Your task to perform on an android device: install app "Truecaller" Image 0: 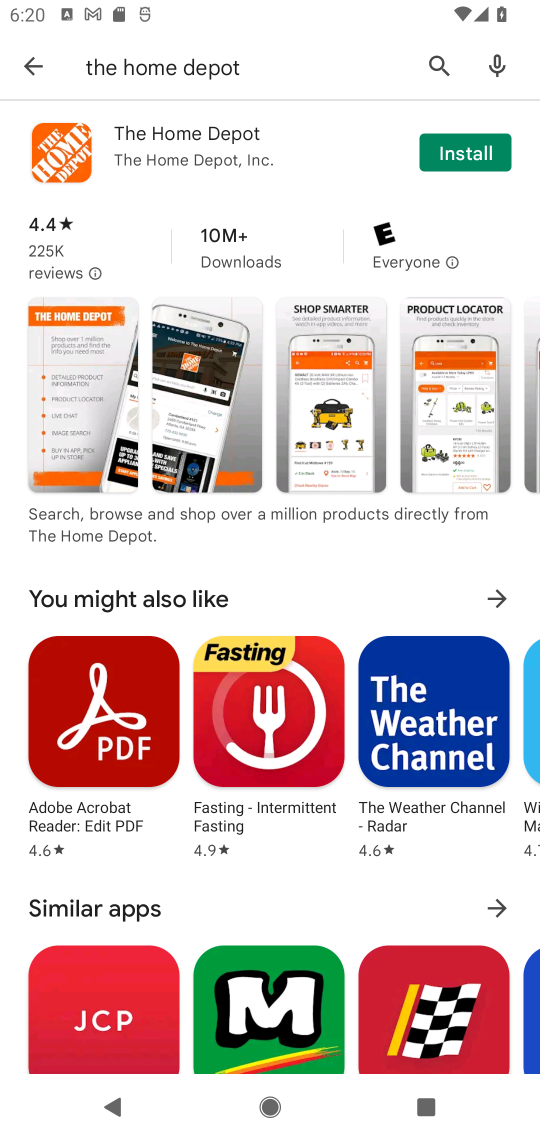
Step 0: press back button
Your task to perform on an android device: install app "Truecaller" Image 1: 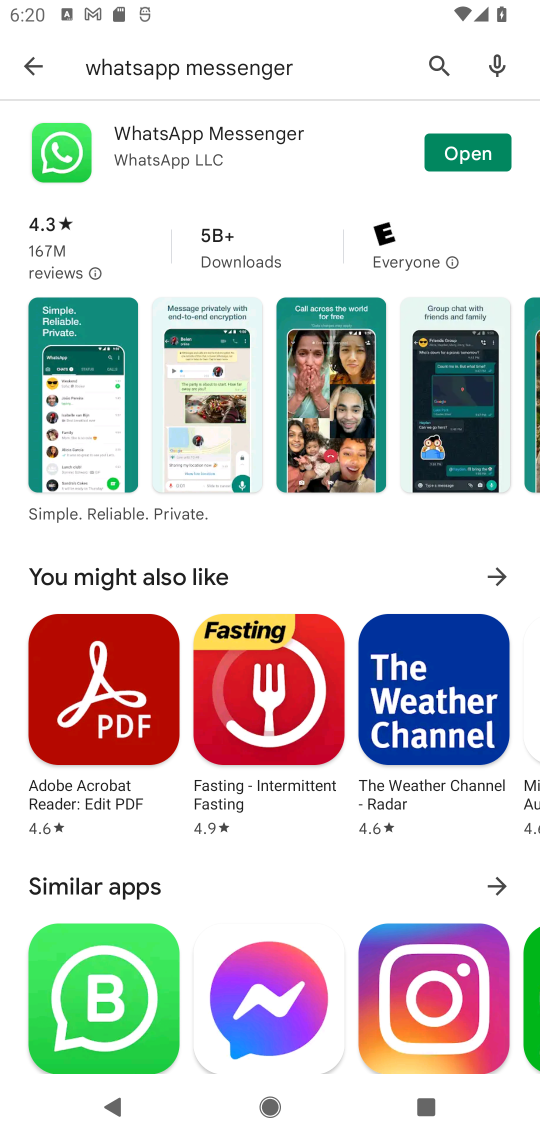
Step 1: press back button
Your task to perform on an android device: install app "Truecaller" Image 2: 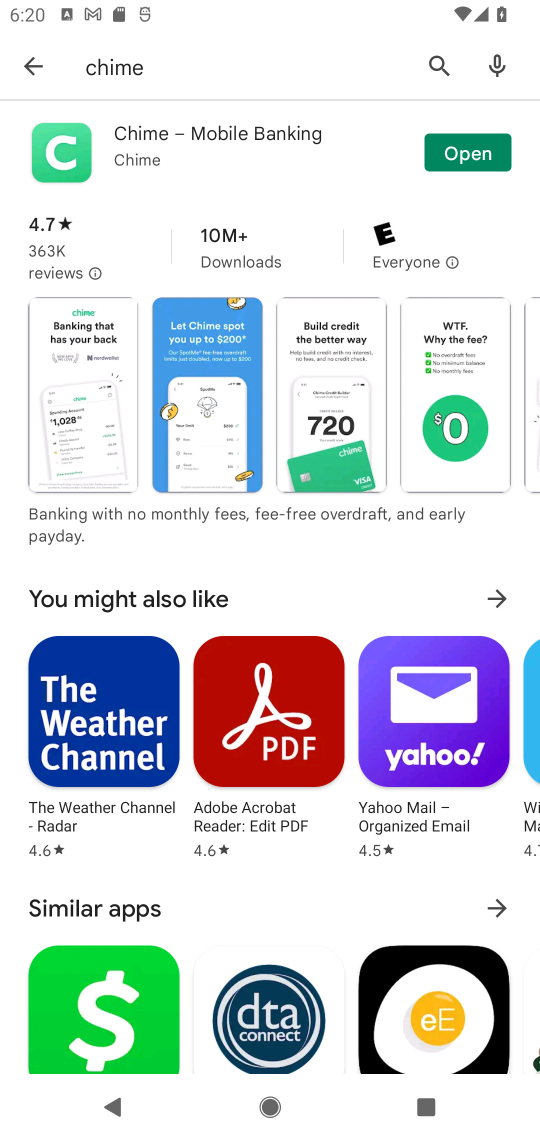
Step 2: press back button
Your task to perform on an android device: install app "Truecaller" Image 3: 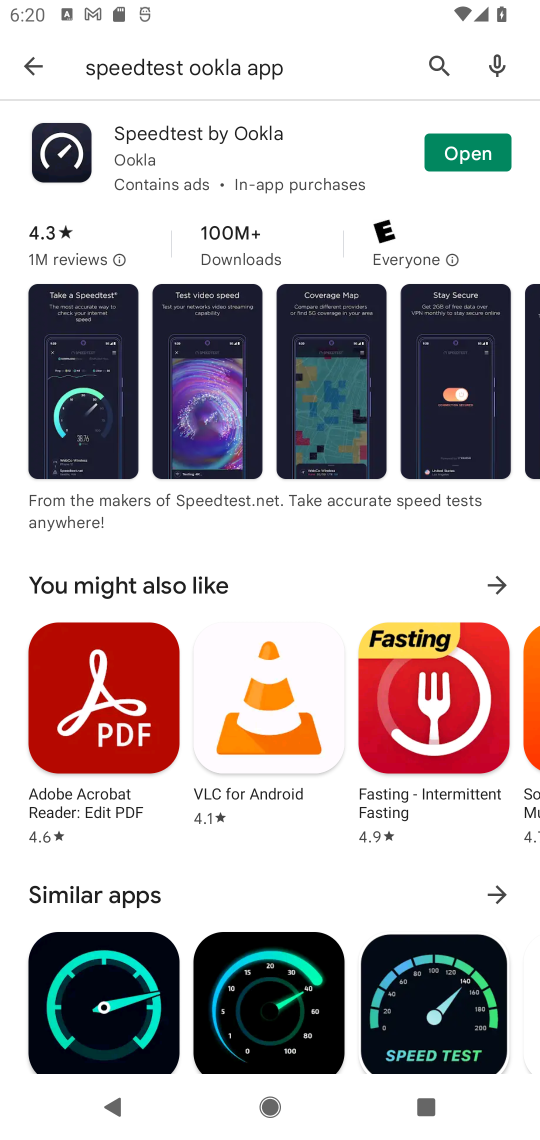
Step 3: press back button
Your task to perform on an android device: install app "Truecaller" Image 4: 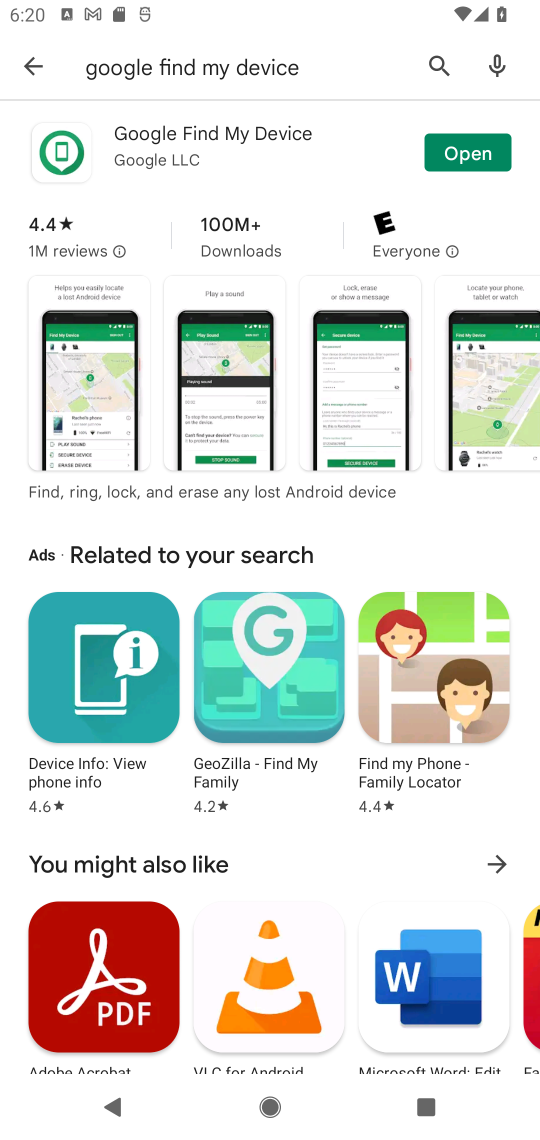
Step 4: press back button
Your task to perform on an android device: install app "Truecaller" Image 5: 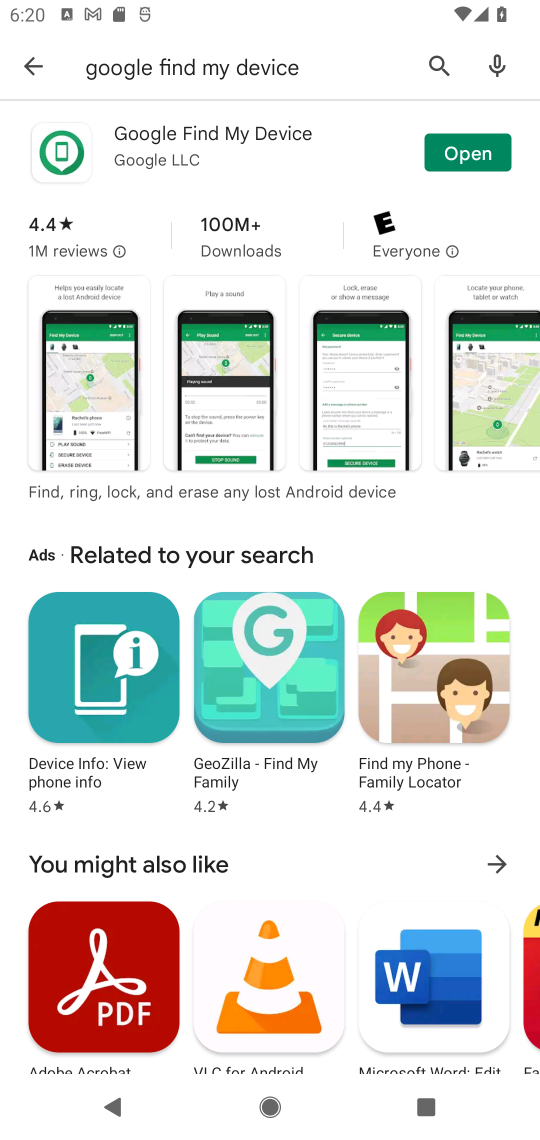
Step 5: press back button
Your task to perform on an android device: install app "Truecaller" Image 6: 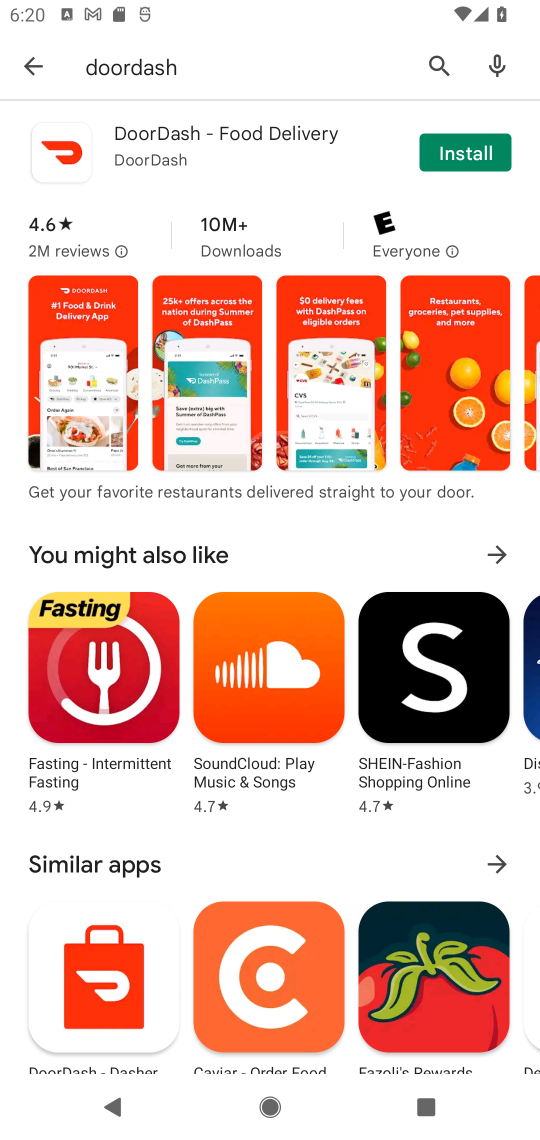
Step 6: press back button
Your task to perform on an android device: install app "Truecaller" Image 7: 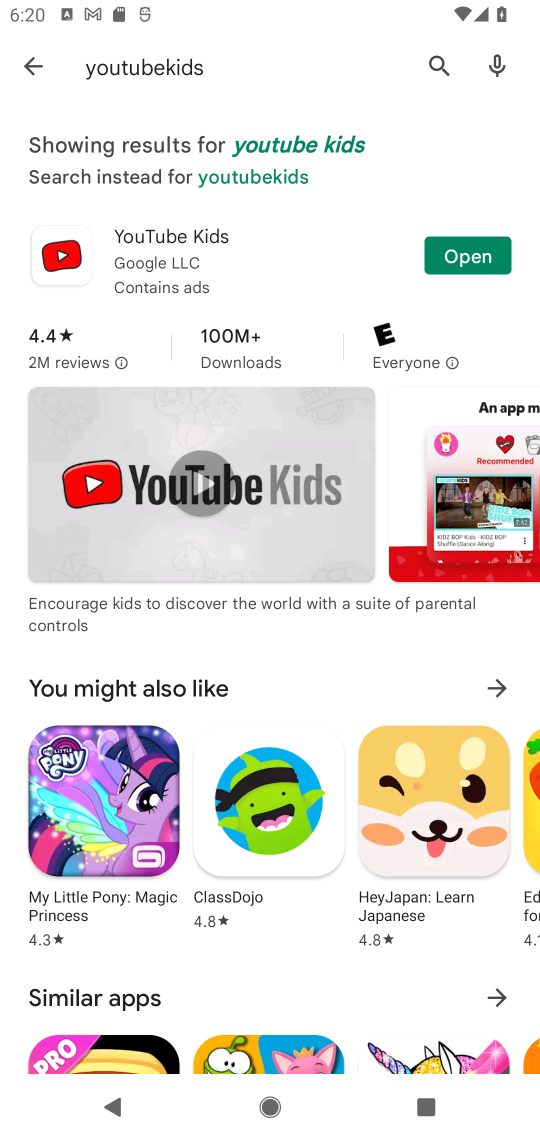
Step 7: press back button
Your task to perform on an android device: install app "Truecaller" Image 8: 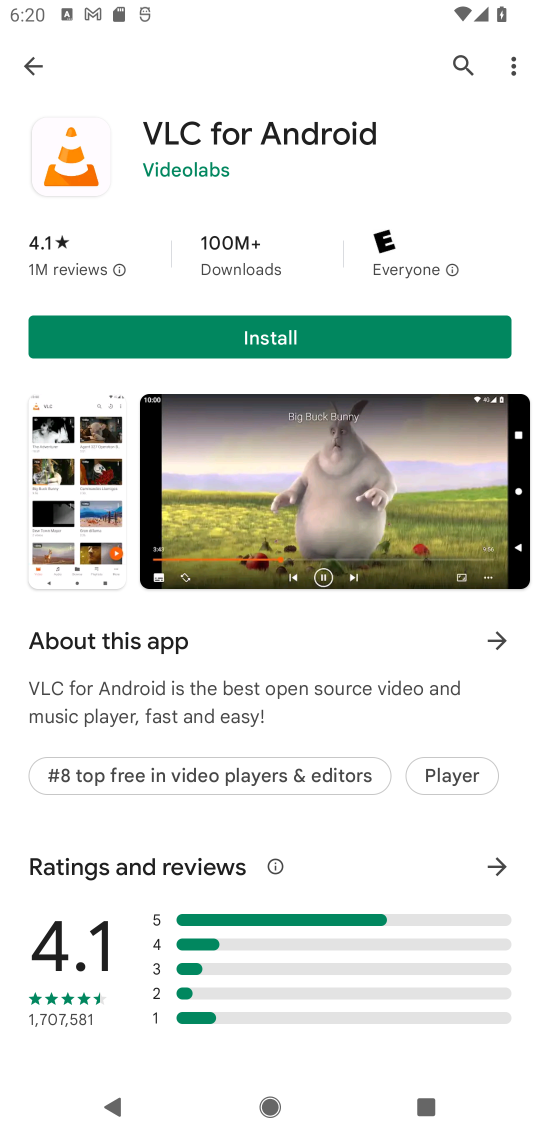
Step 8: press back button
Your task to perform on an android device: install app "Truecaller" Image 9: 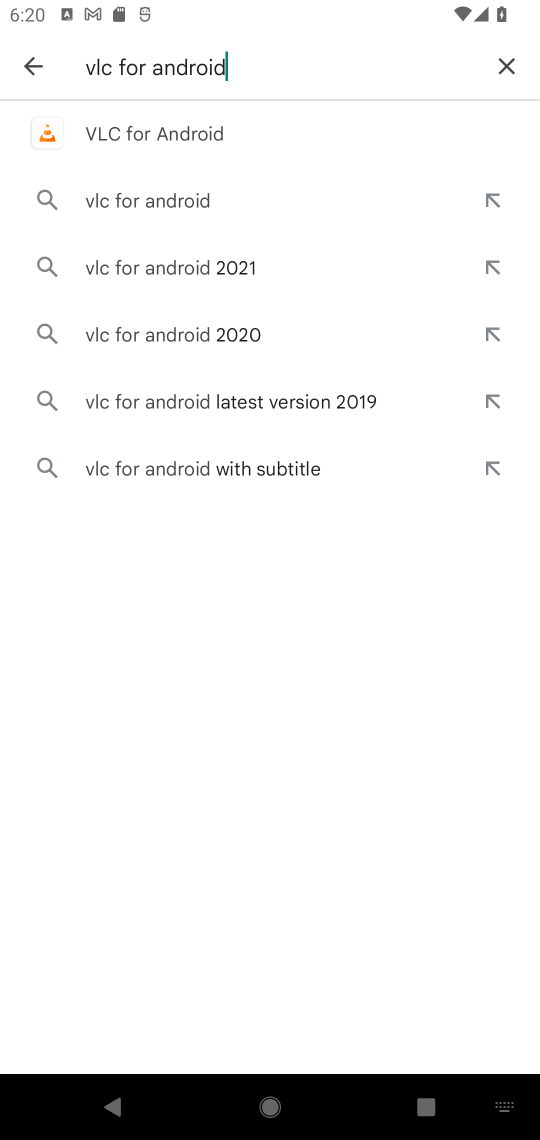
Step 9: click (516, 68)
Your task to perform on an android device: install app "Truecaller" Image 10: 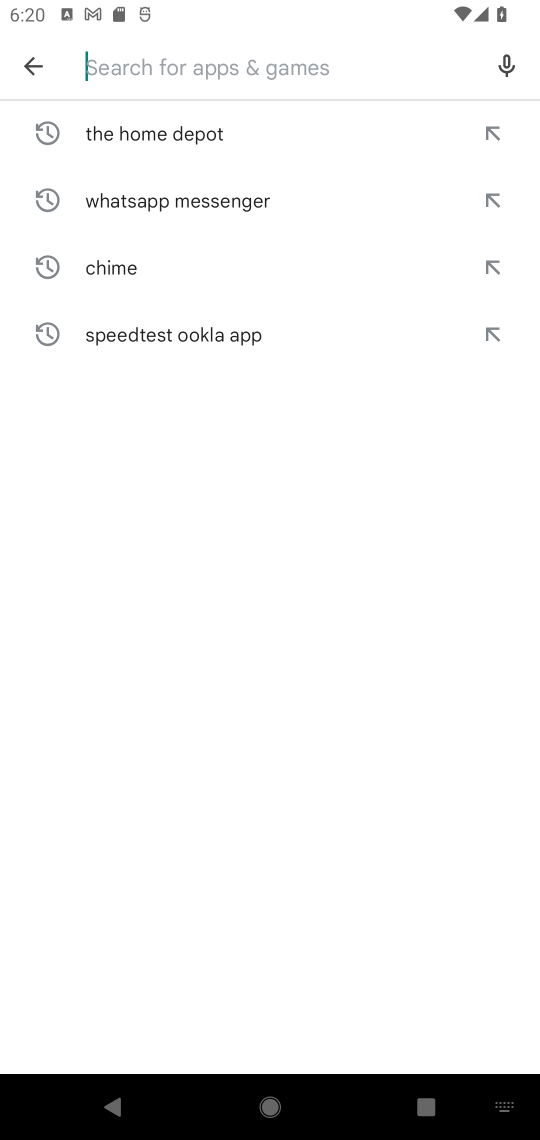
Step 10: click (125, 77)
Your task to perform on an android device: install app "Truecaller" Image 11: 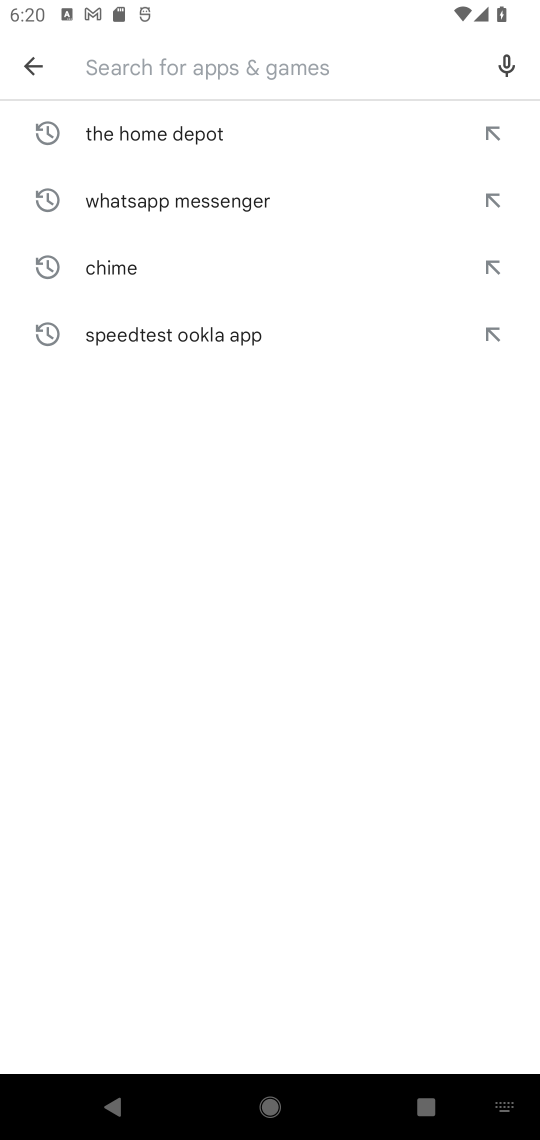
Step 11: type "truecaller"
Your task to perform on an android device: install app "Truecaller" Image 12: 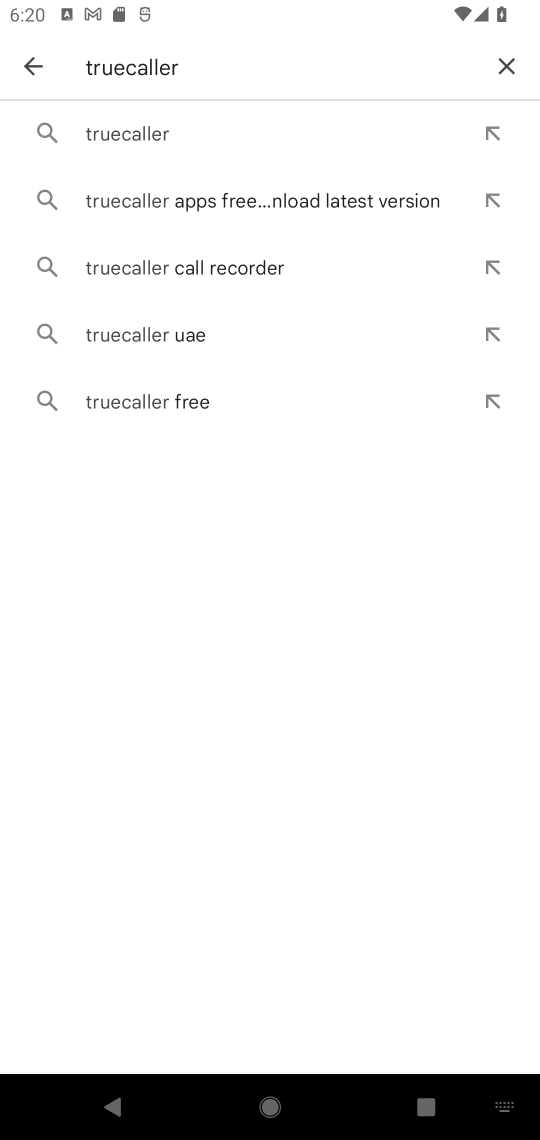
Step 12: click (143, 140)
Your task to perform on an android device: install app "Truecaller" Image 13: 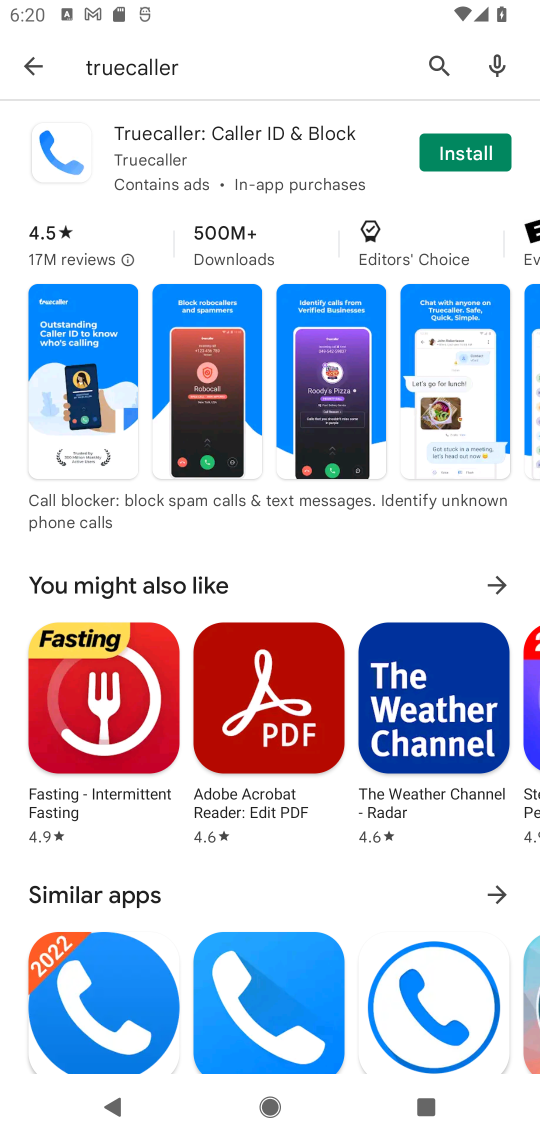
Step 13: click (446, 156)
Your task to perform on an android device: install app "Truecaller" Image 14: 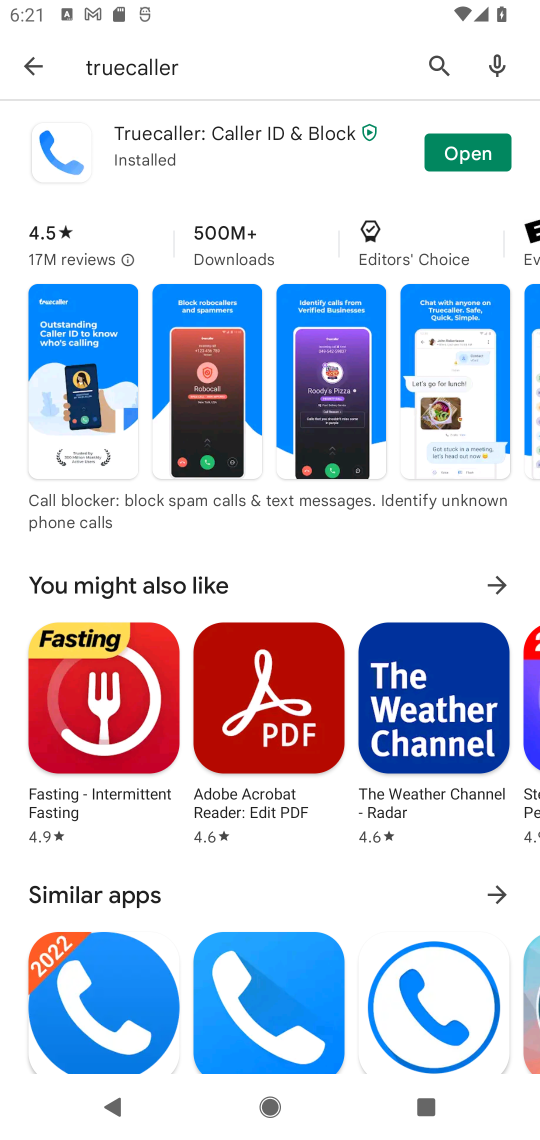
Step 14: click (459, 168)
Your task to perform on an android device: install app "Truecaller" Image 15: 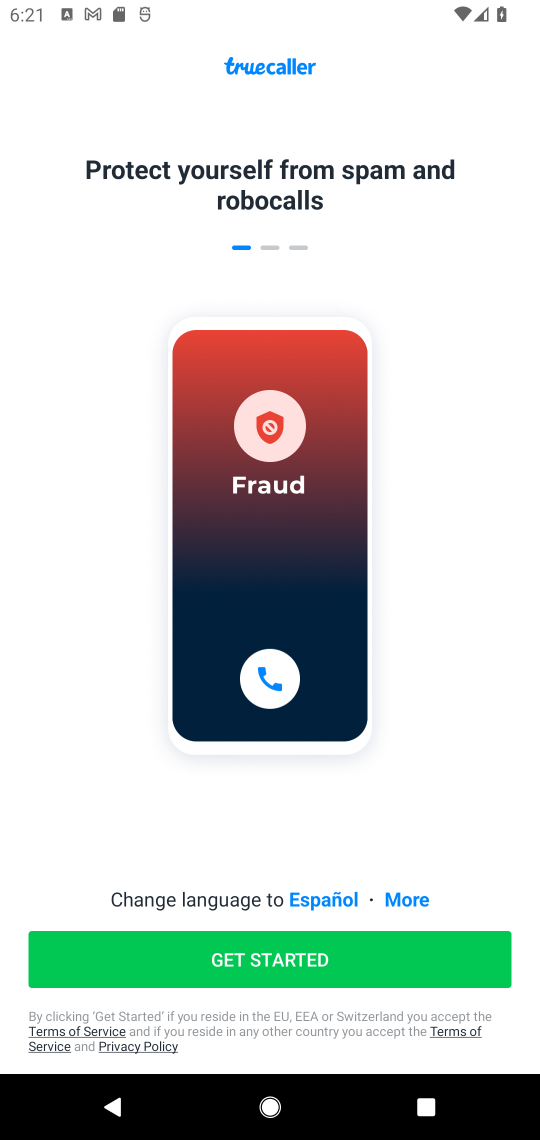
Step 15: task complete